Your task to perform on an android device: Is it going to rain tomorrow? Image 0: 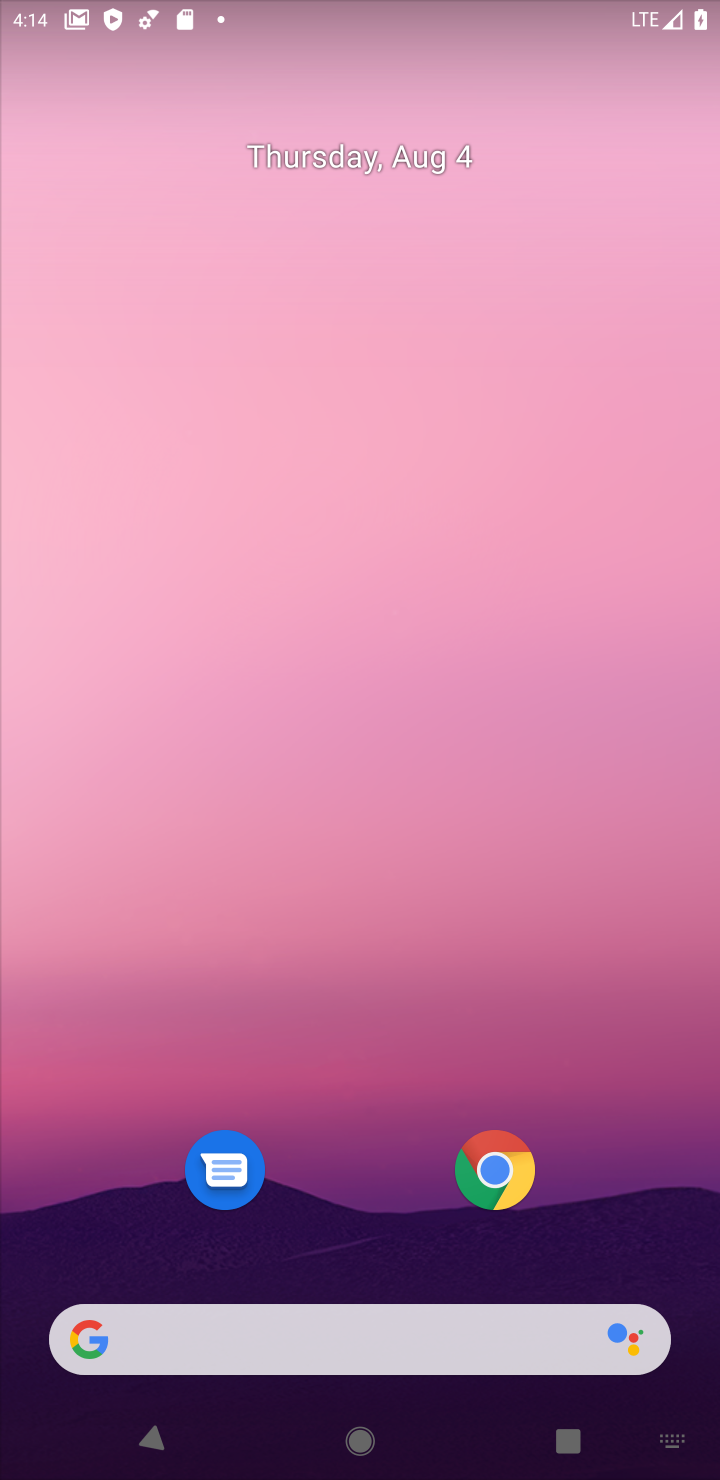
Step 0: click (506, 1175)
Your task to perform on an android device: Is it going to rain tomorrow? Image 1: 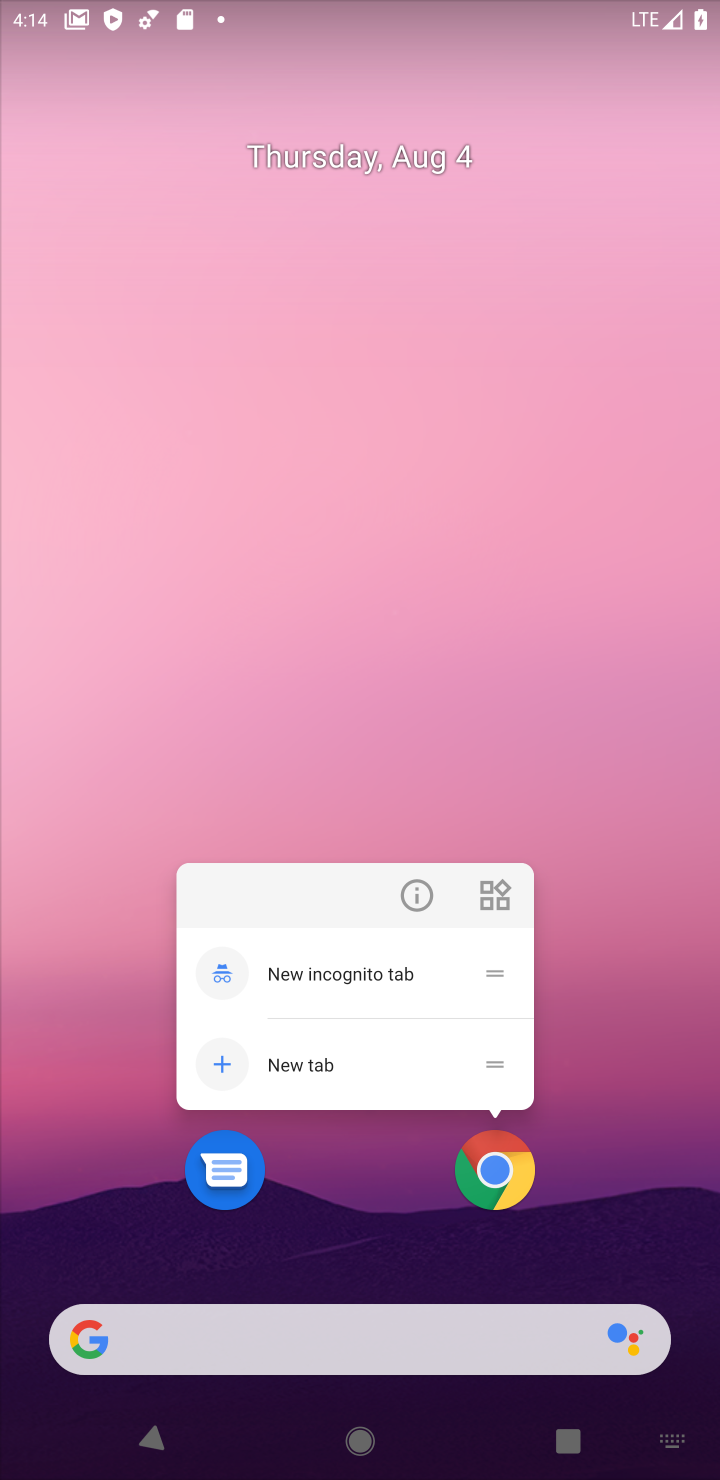
Step 1: click (506, 1194)
Your task to perform on an android device: Is it going to rain tomorrow? Image 2: 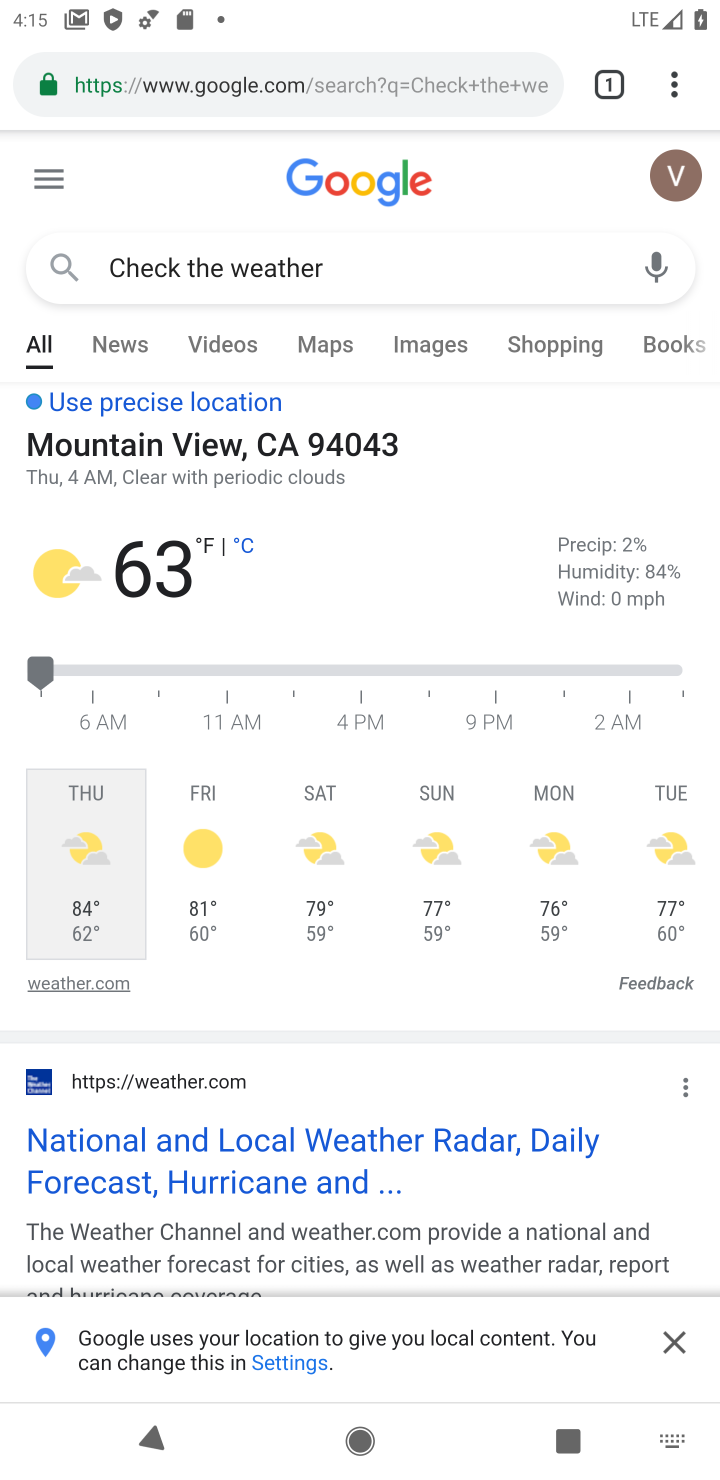
Step 2: click (427, 96)
Your task to perform on an android device: Is it going to rain tomorrow? Image 3: 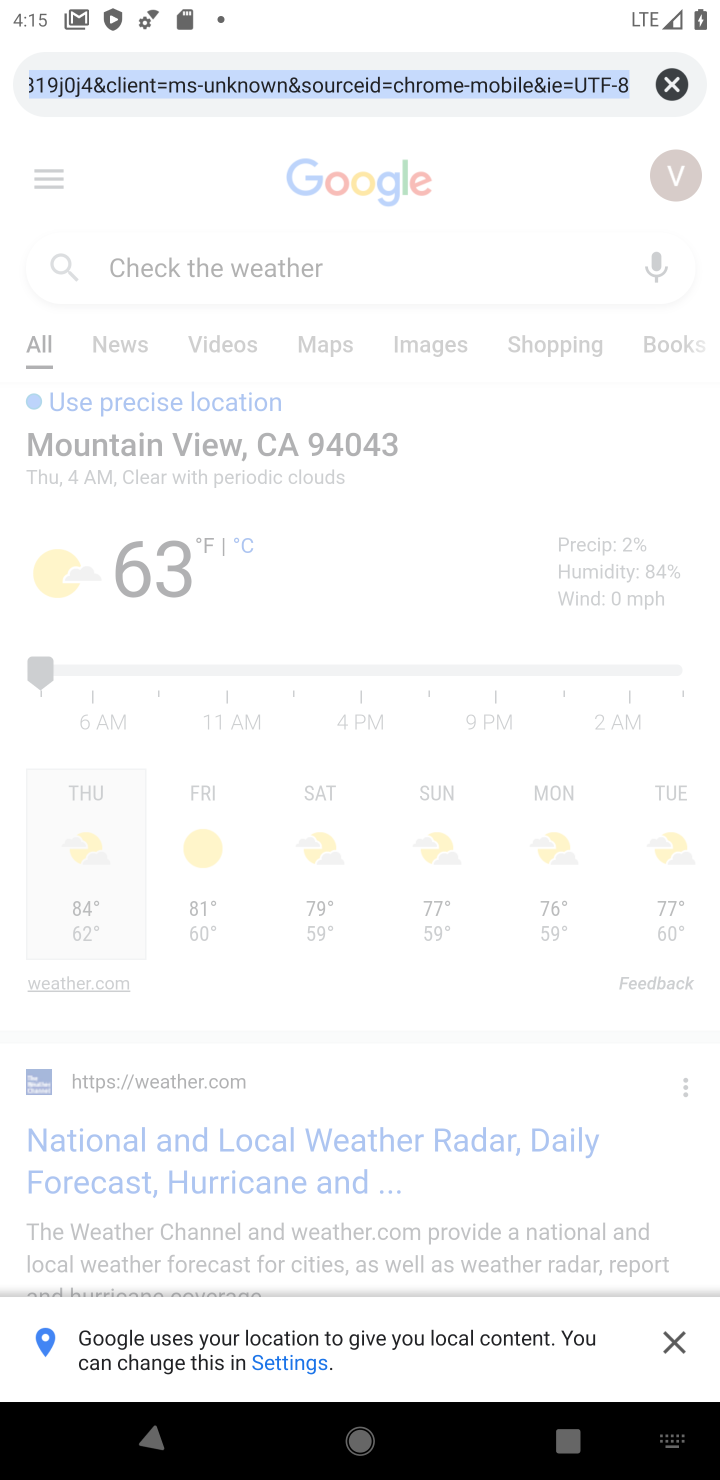
Step 3: type "Is it going to rain tomorrow?"
Your task to perform on an android device: Is it going to rain tomorrow? Image 4: 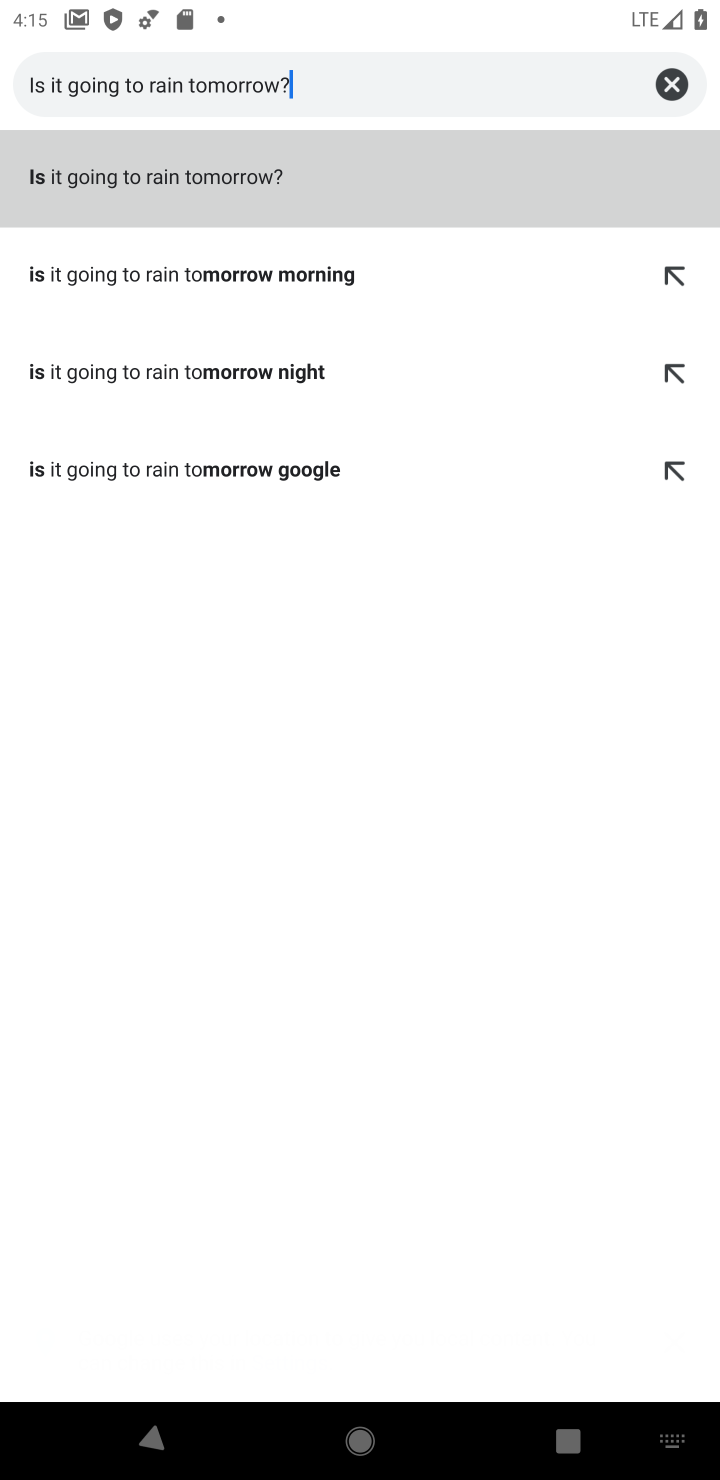
Step 4: click (152, 172)
Your task to perform on an android device: Is it going to rain tomorrow? Image 5: 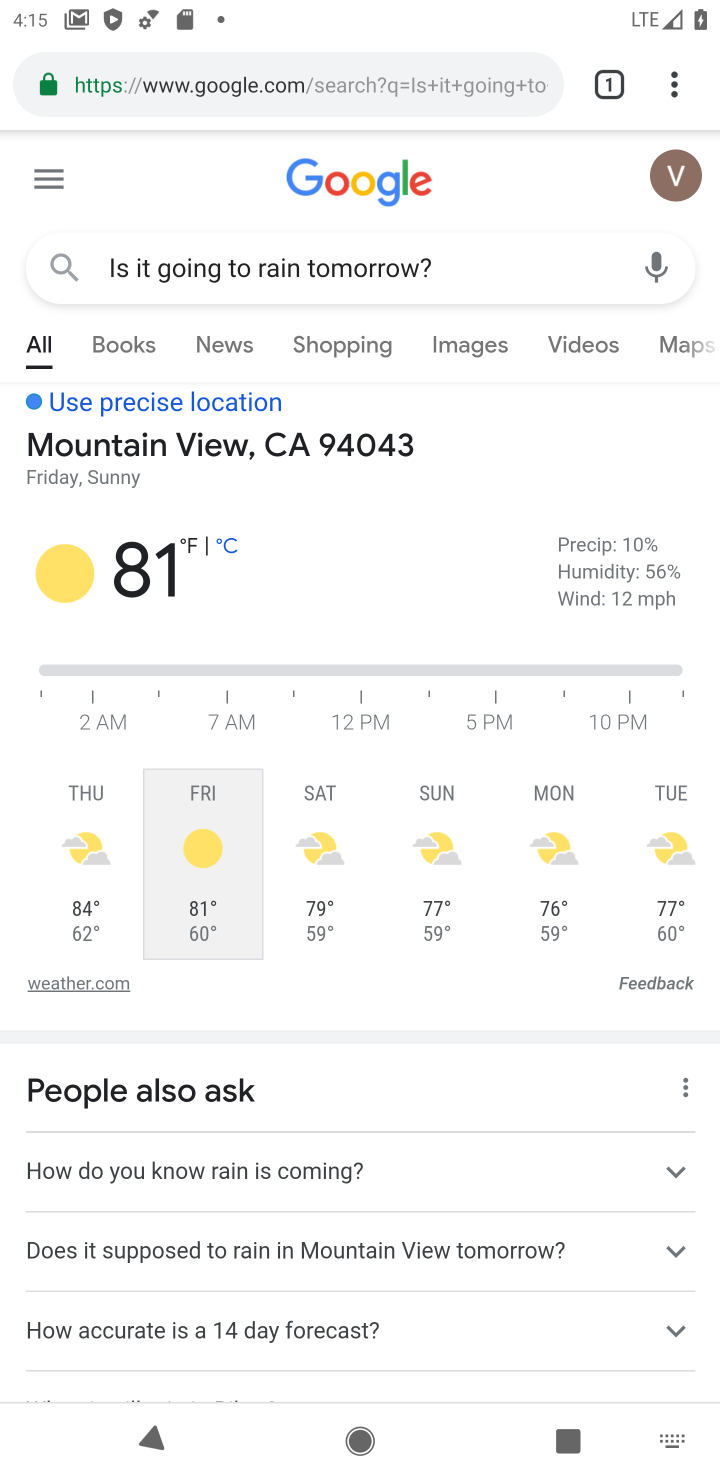
Step 5: task complete